Your task to perform on an android device: Open the calendar and show me this week's events? Image 0: 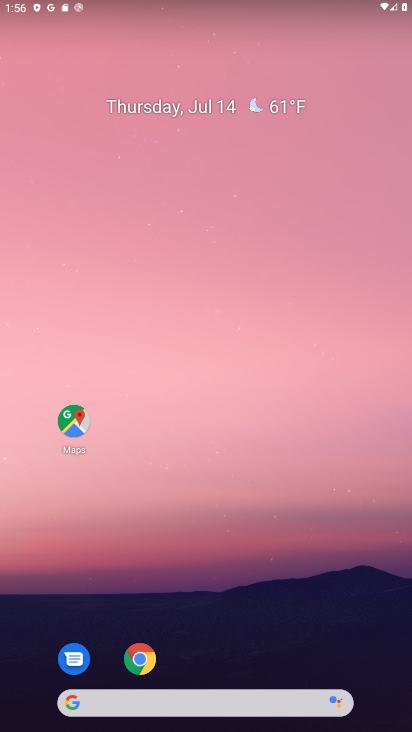
Step 0: drag from (214, 685) to (168, 177)
Your task to perform on an android device: Open the calendar and show me this week's events? Image 1: 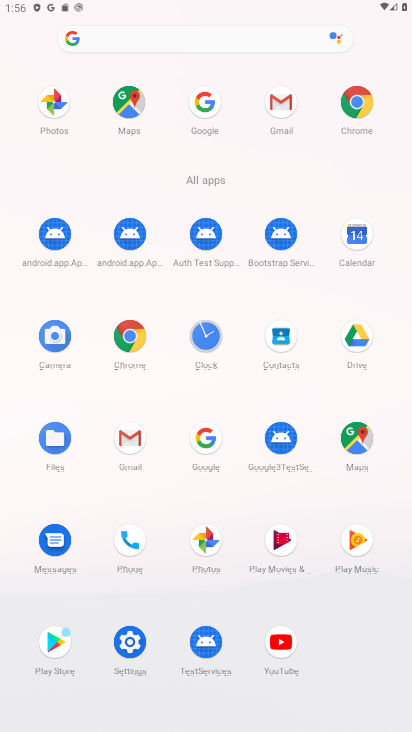
Step 1: click (350, 247)
Your task to perform on an android device: Open the calendar and show me this week's events? Image 2: 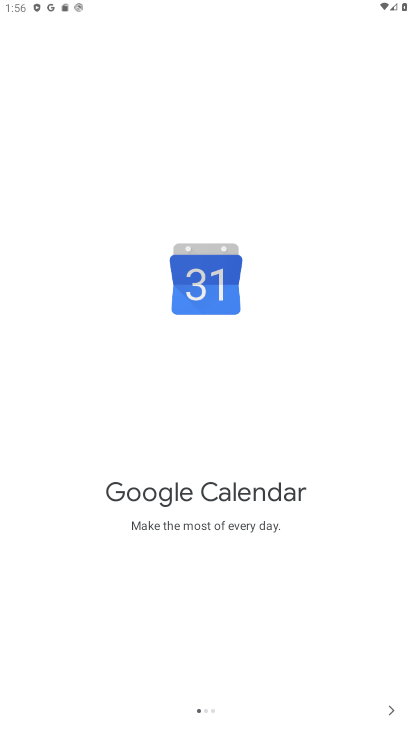
Step 2: click (384, 711)
Your task to perform on an android device: Open the calendar and show me this week's events? Image 3: 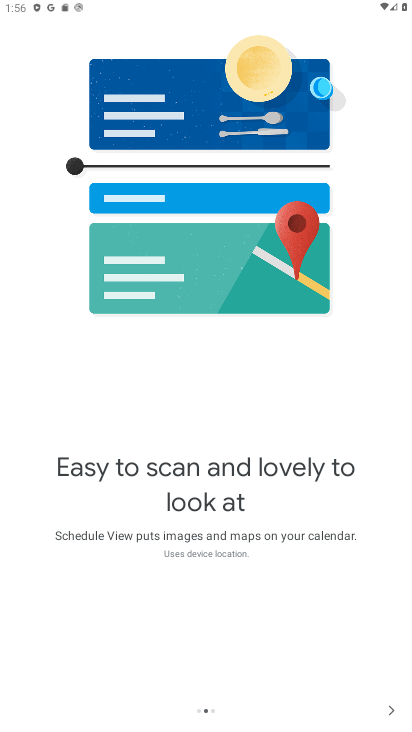
Step 3: press home button
Your task to perform on an android device: Open the calendar and show me this week's events? Image 4: 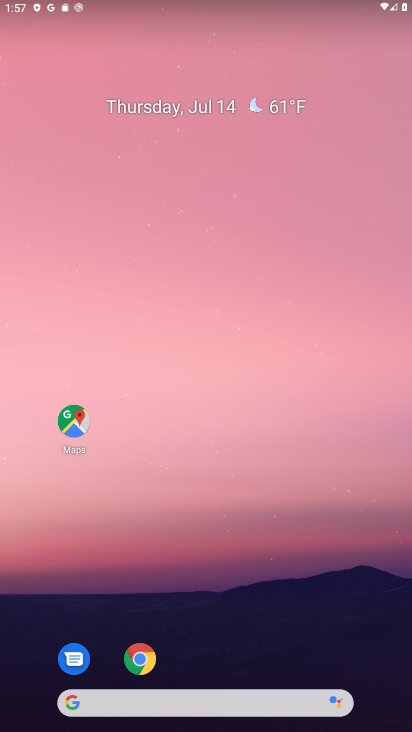
Step 4: drag from (183, 585) to (119, 144)
Your task to perform on an android device: Open the calendar and show me this week's events? Image 5: 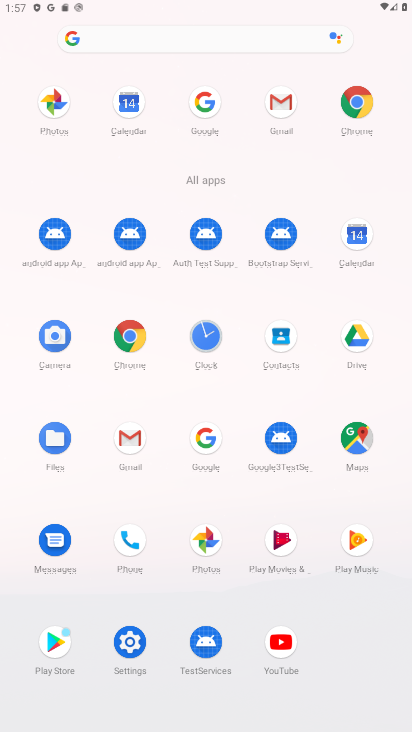
Step 5: click (343, 236)
Your task to perform on an android device: Open the calendar and show me this week's events? Image 6: 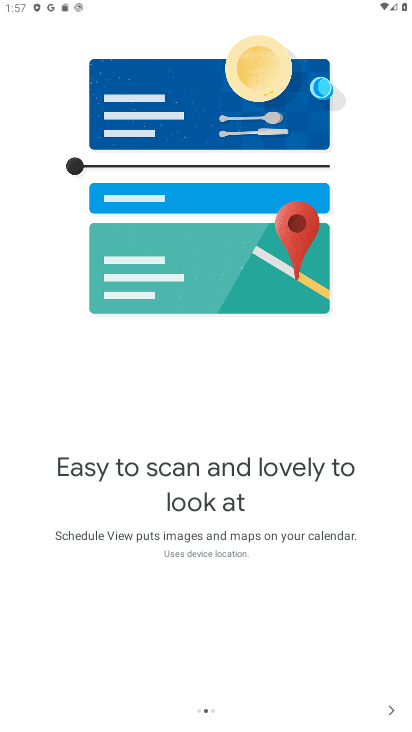
Step 6: click (382, 706)
Your task to perform on an android device: Open the calendar and show me this week's events? Image 7: 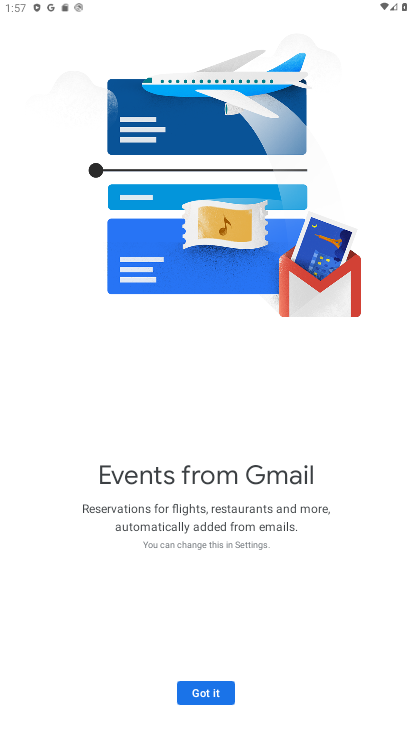
Step 7: click (230, 696)
Your task to perform on an android device: Open the calendar and show me this week's events? Image 8: 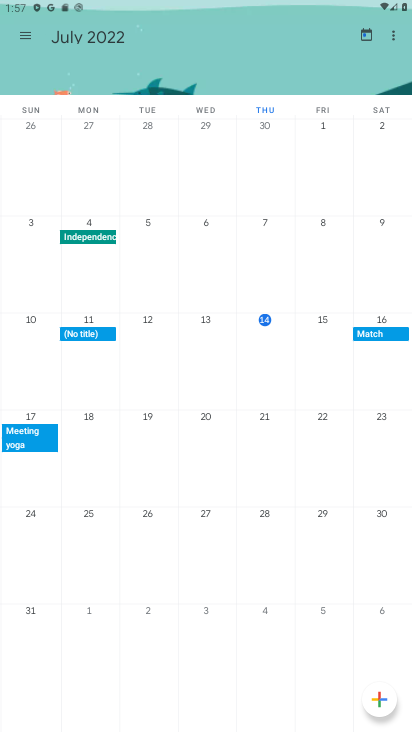
Step 8: click (21, 32)
Your task to perform on an android device: Open the calendar and show me this week's events? Image 9: 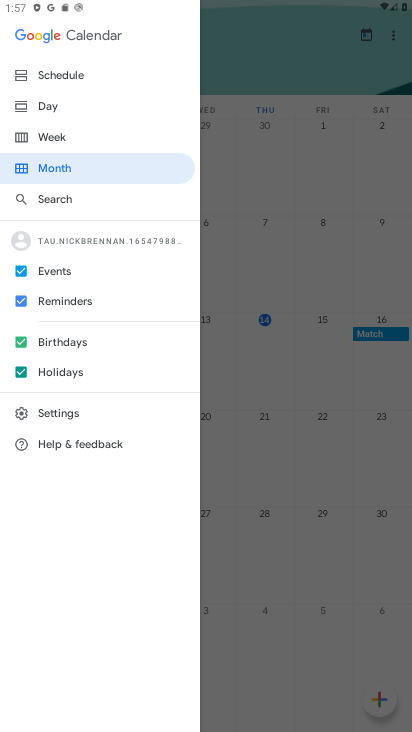
Step 9: click (61, 138)
Your task to perform on an android device: Open the calendar and show me this week's events? Image 10: 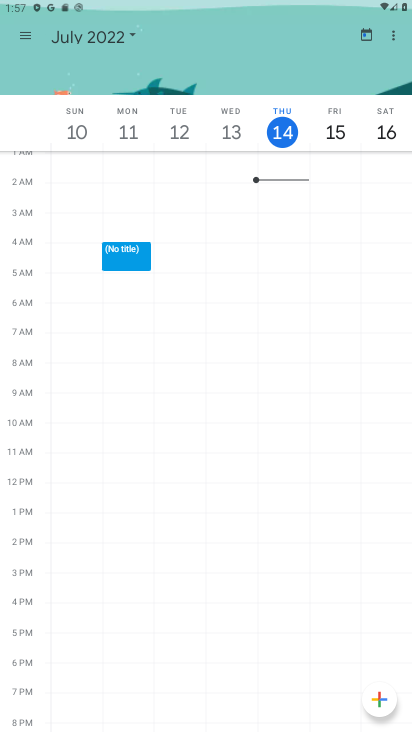
Step 10: task complete